Your task to perform on an android device: toggle pop-ups in chrome Image 0: 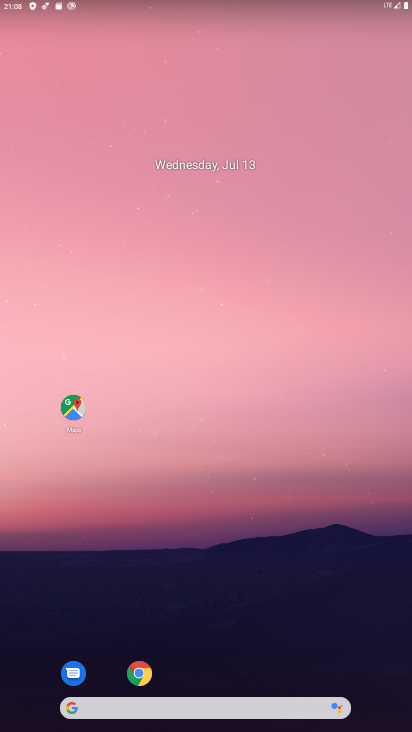
Step 0: drag from (171, 632) to (186, 201)
Your task to perform on an android device: toggle pop-ups in chrome Image 1: 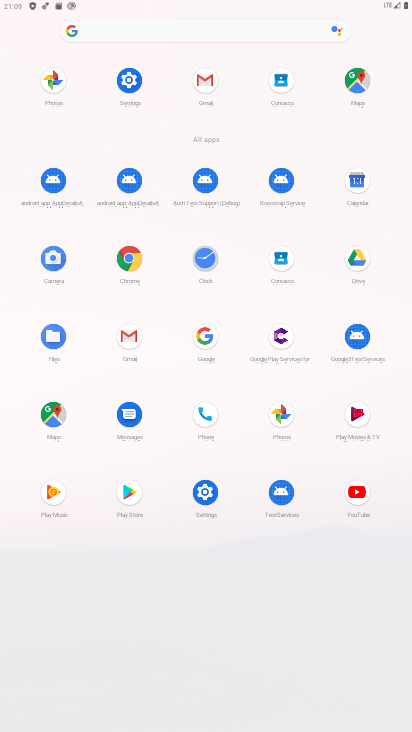
Step 1: click (129, 256)
Your task to perform on an android device: toggle pop-ups in chrome Image 2: 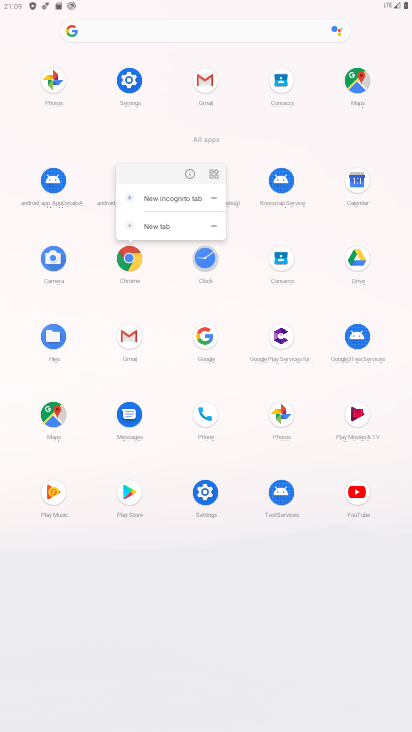
Step 2: click (189, 172)
Your task to perform on an android device: toggle pop-ups in chrome Image 3: 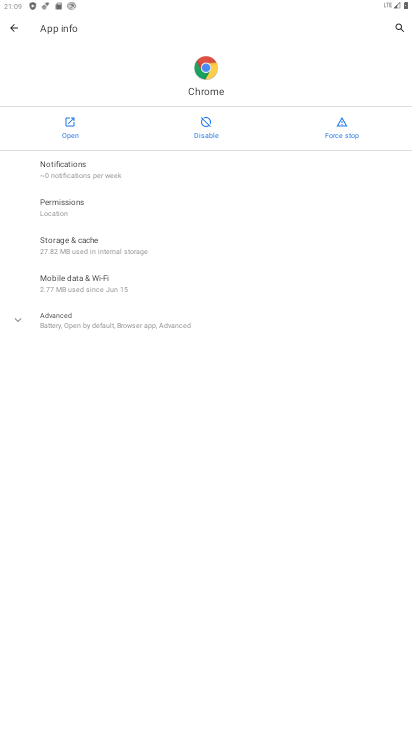
Step 3: click (73, 129)
Your task to perform on an android device: toggle pop-ups in chrome Image 4: 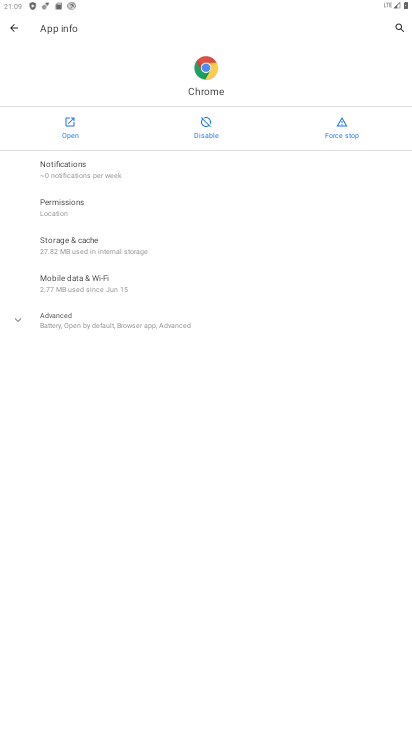
Step 4: click (73, 129)
Your task to perform on an android device: toggle pop-ups in chrome Image 5: 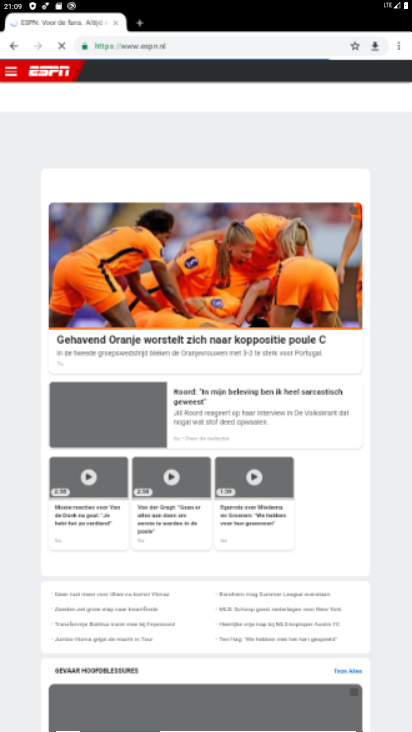
Step 5: drag from (223, 549) to (222, 378)
Your task to perform on an android device: toggle pop-ups in chrome Image 6: 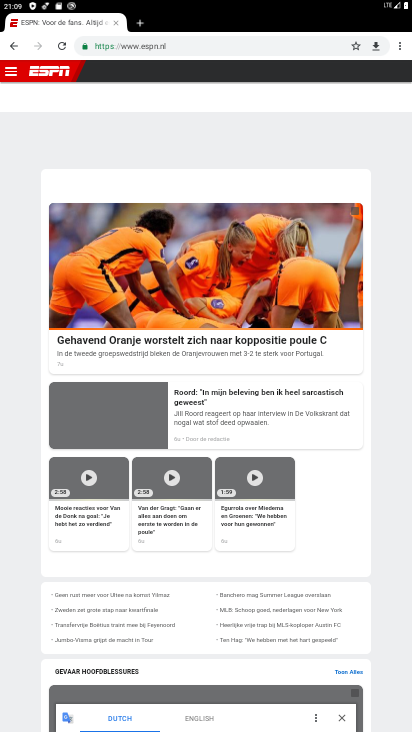
Step 6: drag from (215, 333) to (273, 725)
Your task to perform on an android device: toggle pop-ups in chrome Image 7: 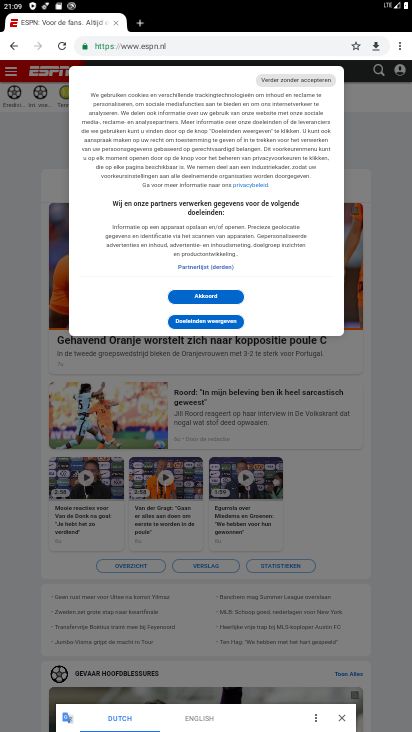
Step 7: click (398, 44)
Your task to perform on an android device: toggle pop-ups in chrome Image 8: 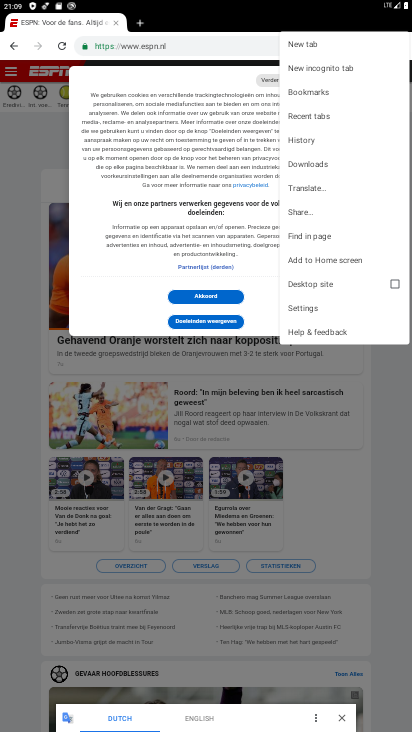
Step 8: click (292, 314)
Your task to perform on an android device: toggle pop-ups in chrome Image 9: 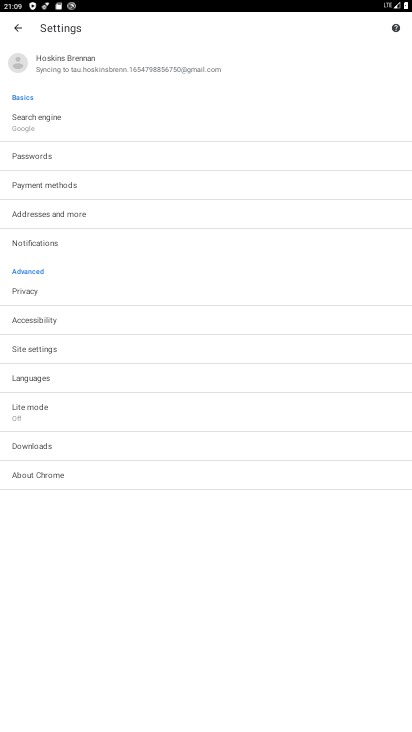
Step 9: drag from (206, 624) to (214, 208)
Your task to perform on an android device: toggle pop-ups in chrome Image 10: 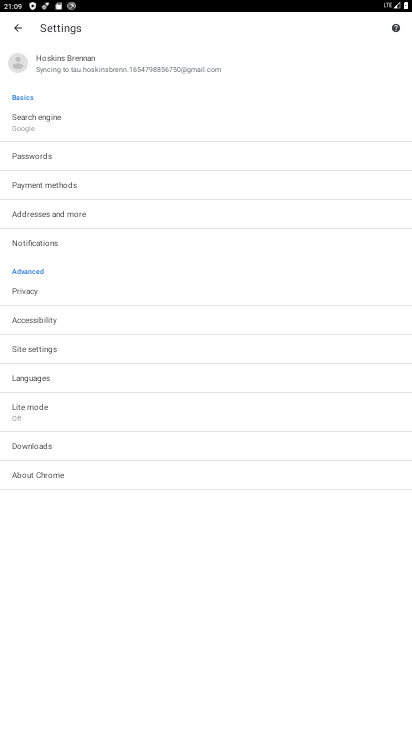
Step 10: click (69, 351)
Your task to perform on an android device: toggle pop-ups in chrome Image 11: 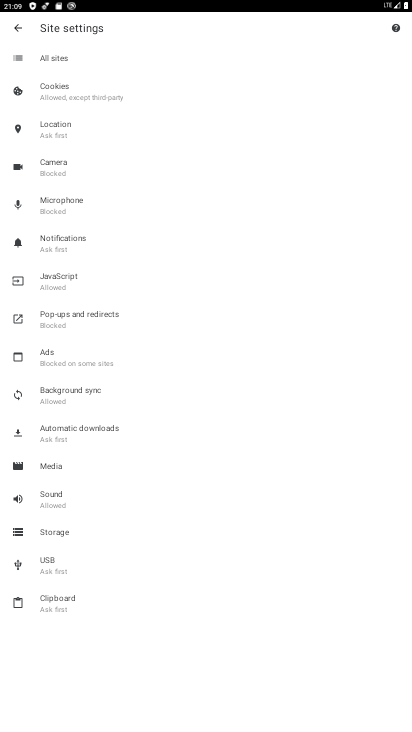
Step 11: click (117, 325)
Your task to perform on an android device: toggle pop-ups in chrome Image 12: 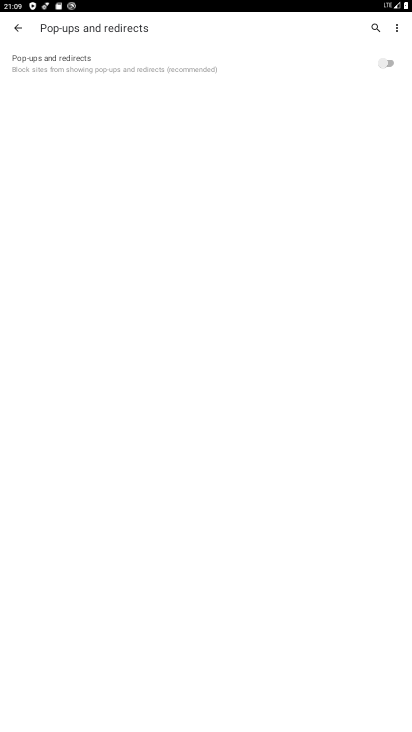
Step 12: click (370, 60)
Your task to perform on an android device: toggle pop-ups in chrome Image 13: 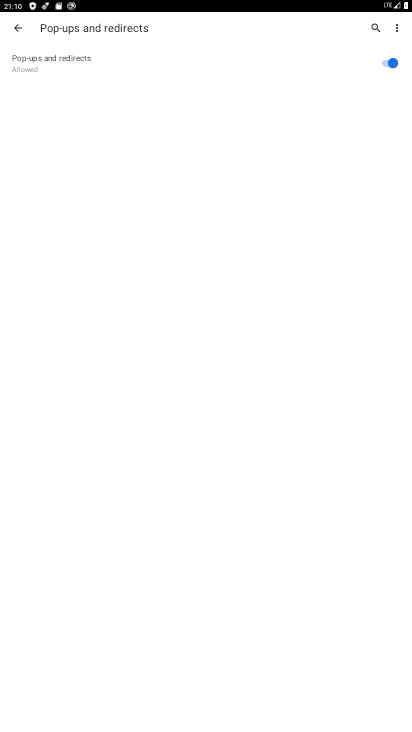
Step 13: task complete